Your task to perform on an android device: Open settings Image 0: 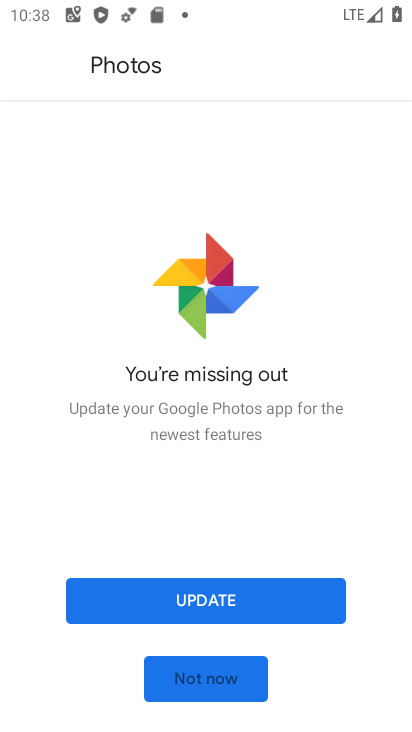
Step 0: press home button
Your task to perform on an android device: Open settings Image 1: 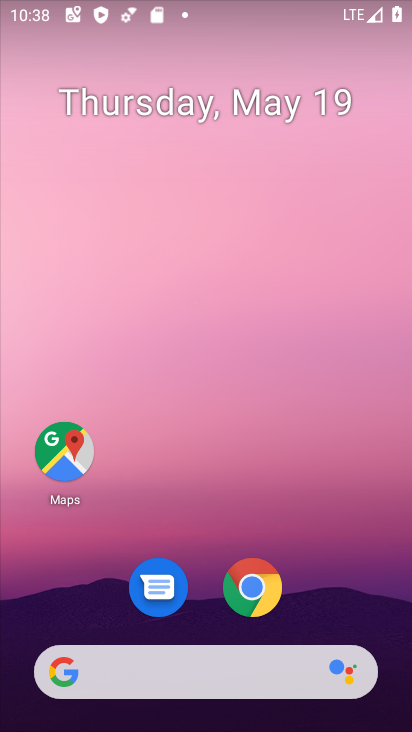
Step 1: drag from (212, 9) to (145, 476)
Your task to perform on an android device: Open settings Image 2: 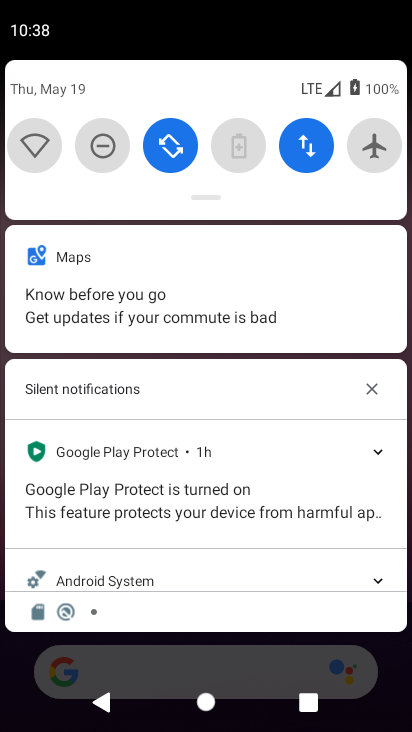
Step 2: drag from (211, 115) to (144, 685)
Your task to perform on an android device: Open settings Image 3: 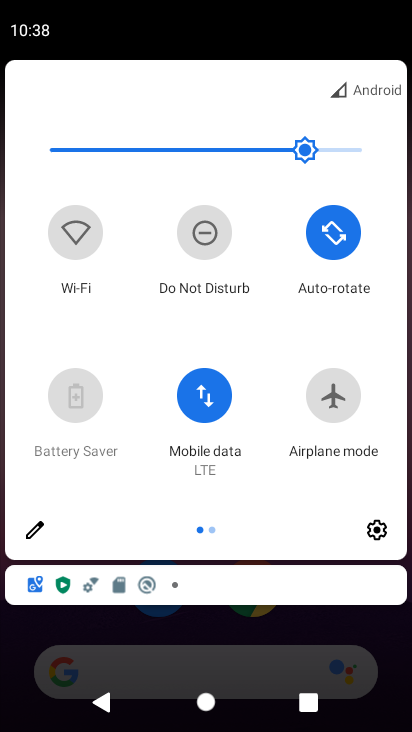
Step 3: click (378, 541)
Your task to perform on an android device: Open settings Image 4: 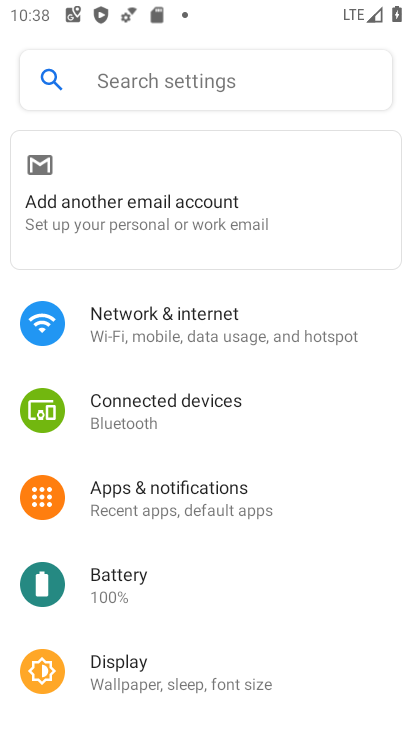
Step 4: task complete